Your task to perform on an android device: change your default location settings in chrome Image 0: 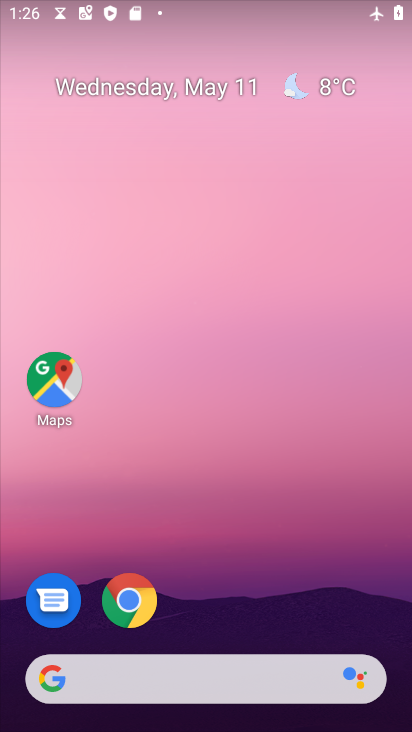
Step 0: click (135, 599)
Your task to perform on an android device: change your default location settings in chrome Image 1: 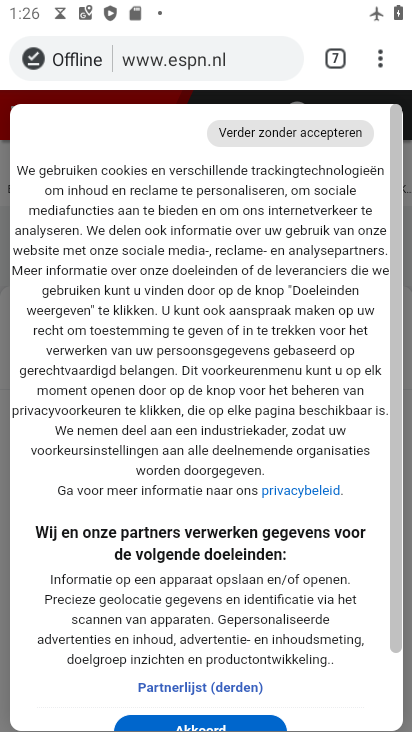
Step 1: click (382, 65)
Your task to perform on an android device: change your default location settings in chrome Image 2: 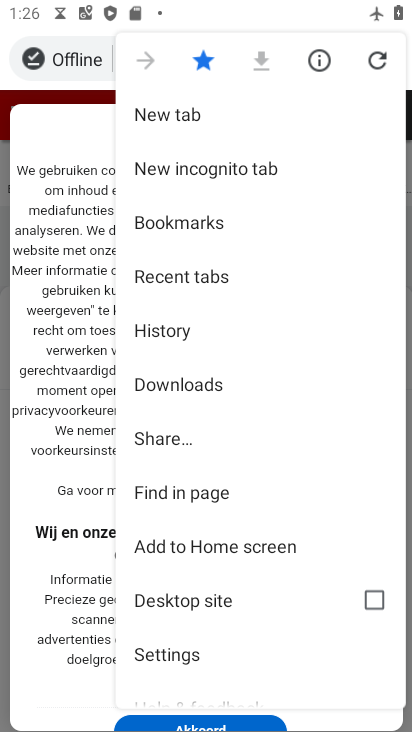
Step 2: click (198, 643)
Your task to perform on an android device: change your default location settings in chrome Image 3: 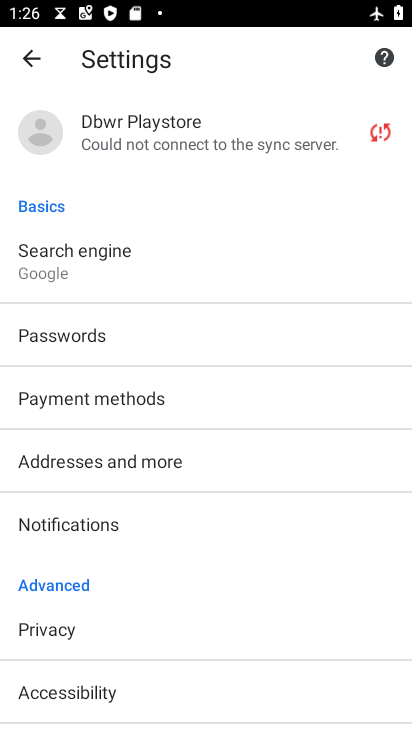
Step 3: drag from (96, 648) to (129, 345)
Your task to perform on an android device: change your default location settings in chrome Image 4: 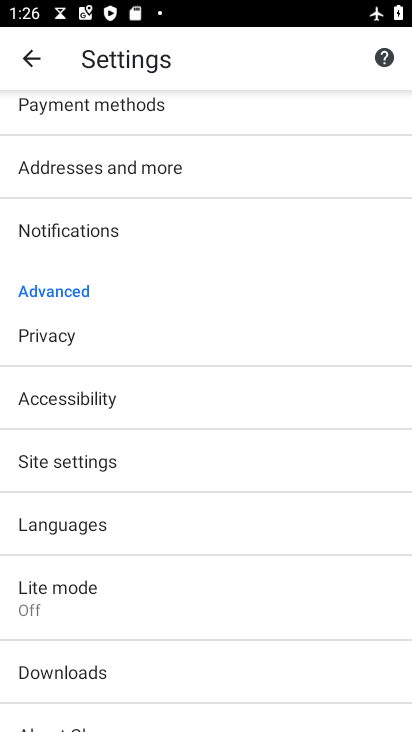
Step 4: click (116, 463)
Your task to perform on an android device: change your default location settings in chrome Image 5: 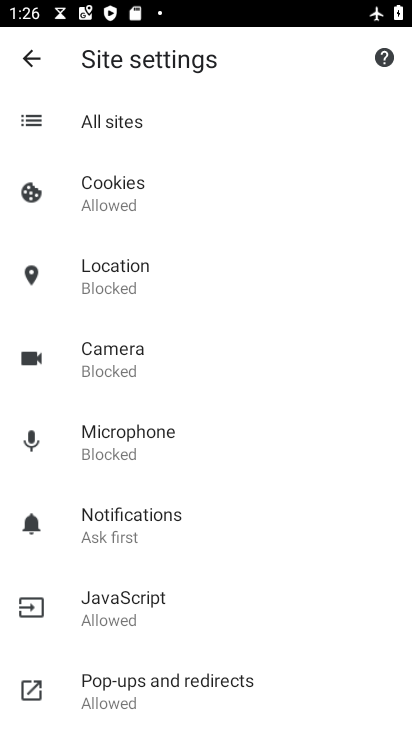
Step 5: click (156, 273)
Your task to perform on an android device: change your default location settings in chrome Image 6: 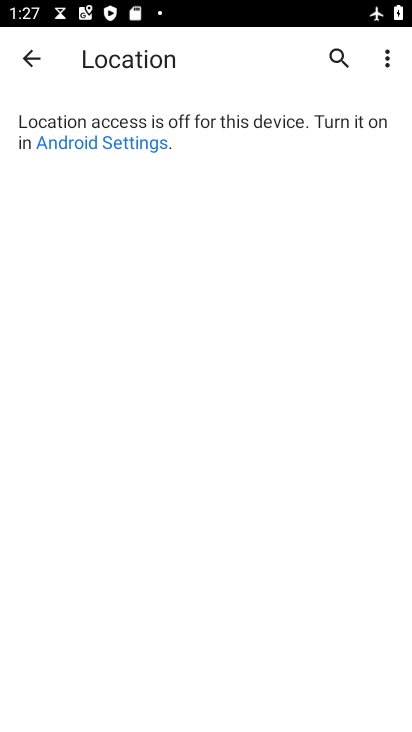
Step 6: task complete